Your task to perform on an android device: Open Maps and search for coffee Image 0: 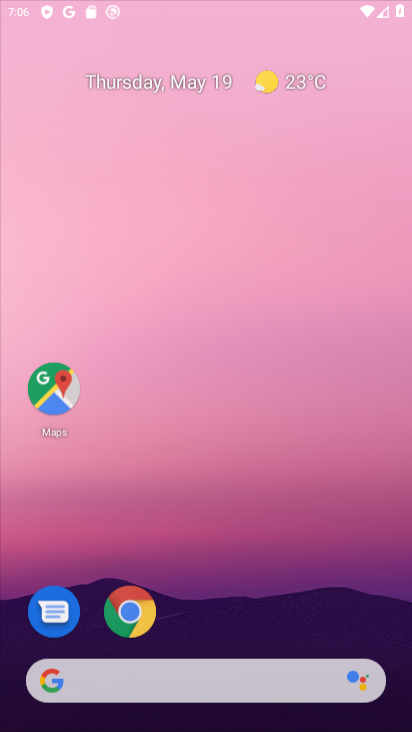
Step 0: click (339, 596)
Your task to perform on an android device: Open Maps and search for coffee Image 1: 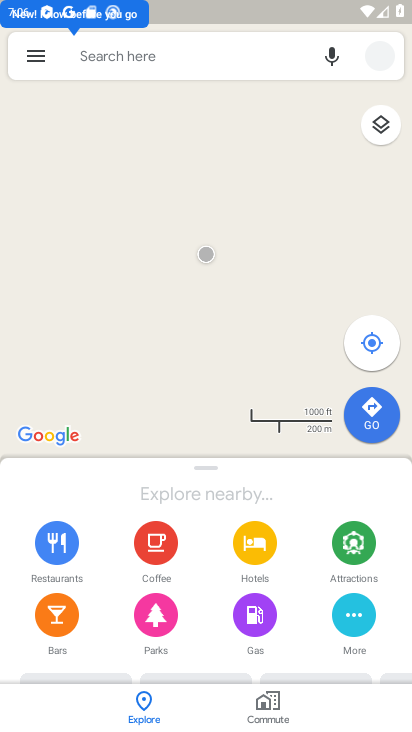
Step 1: press home button
Your task to perform on an android device: Open Maps and search for coffee Image 2: 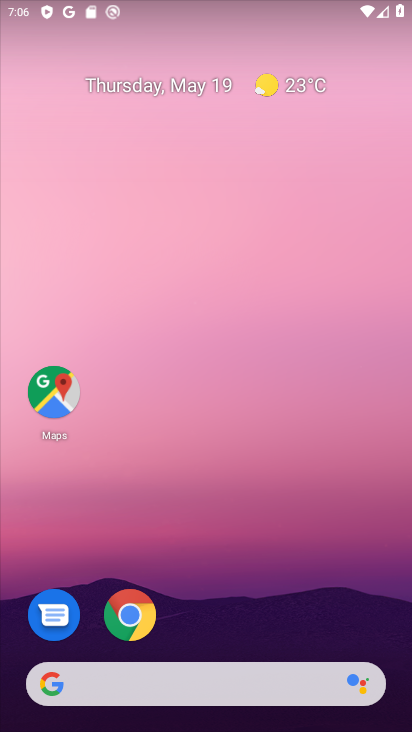
Step 2: drag from (339, 615) to (318, 30)
Your task to perform on an android device: Open Maps and search for coffee Image 3: 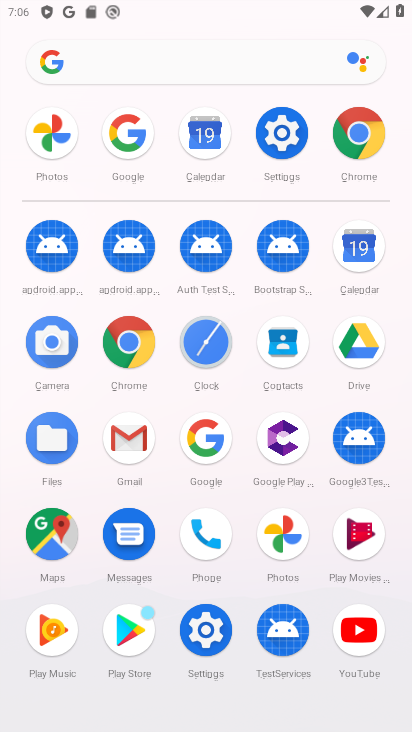
Step 3: click (57, 535)
Your task to perform on an android device: Open Maps and search for coffee Image 4: 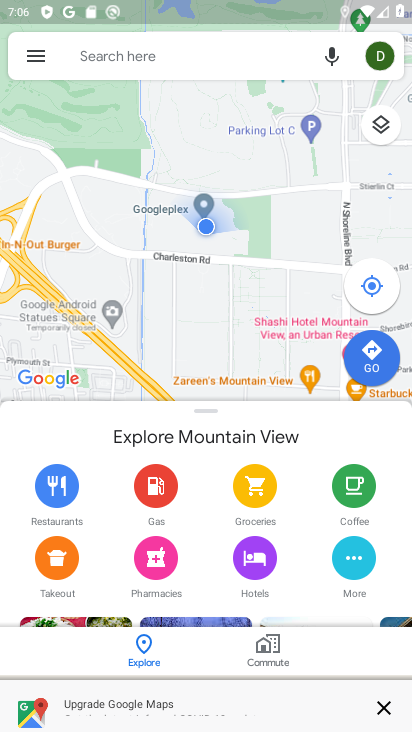
Step 4: click (128, 52)
Your task to perform on an android device: Open Maps and search for coffee Image 5: 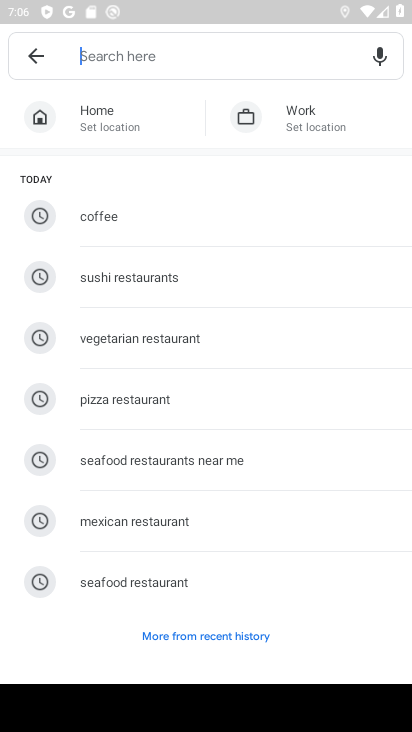
Step 5: click (128, 224)
Your task to perform on an android device: Open Maps and search for coffee Image 6: 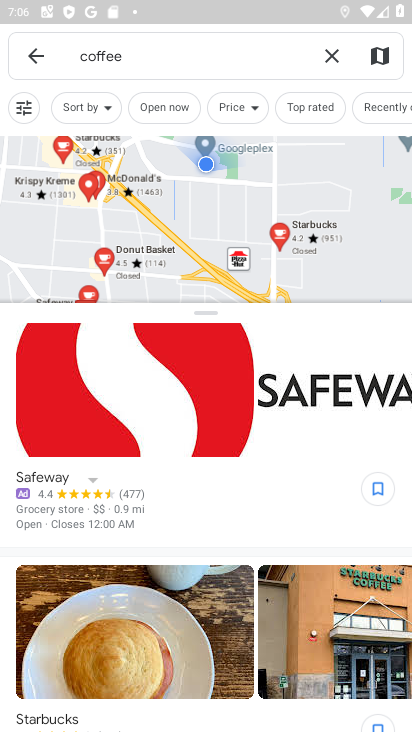
Step 6: task complete